Your task to perform on an android device: read, delete, or share a saved page in the chrome app Image 0: 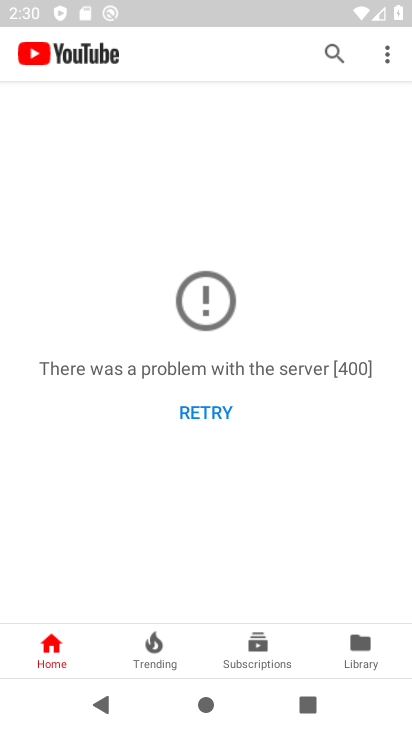
Step 0: press home button
Your task to perform on an android device: read, delete, or share a saved page in the chrome app Image 1: 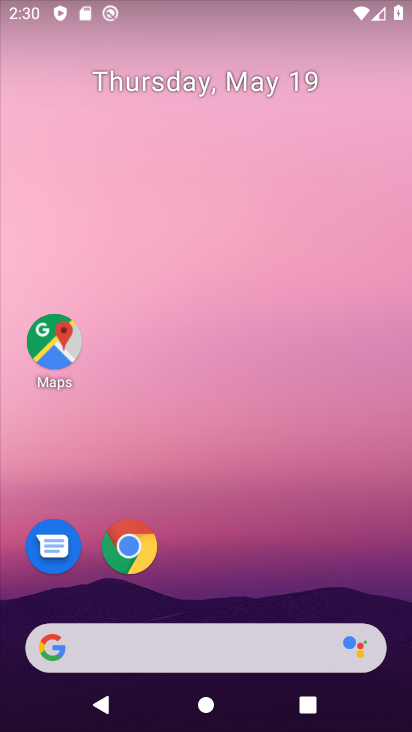
Step 1: click (141, 558)
Your task to perform on an android device: read, delete, or share a saved page in the chrome app Image 2: 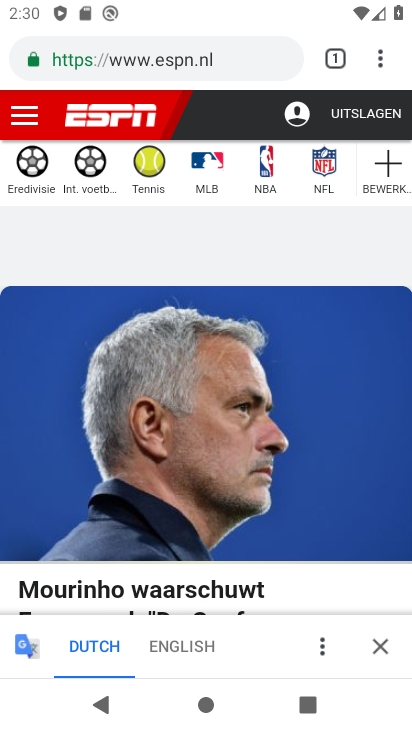
Step 2: drag from (379, 72) to (214, 381)
Your task to perform on an android device: read, delete, or share a saved page in the chrome app Image 3: 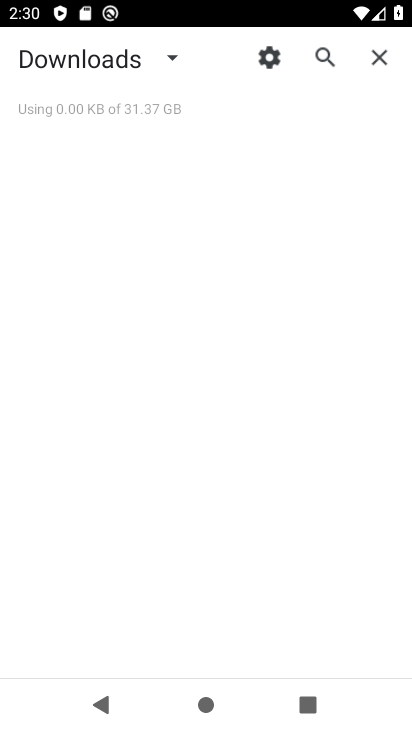
Step 3: click (129, 62)
Your task to perform on an android device: read, delete, or share a saved page in the chrome app Image 4: 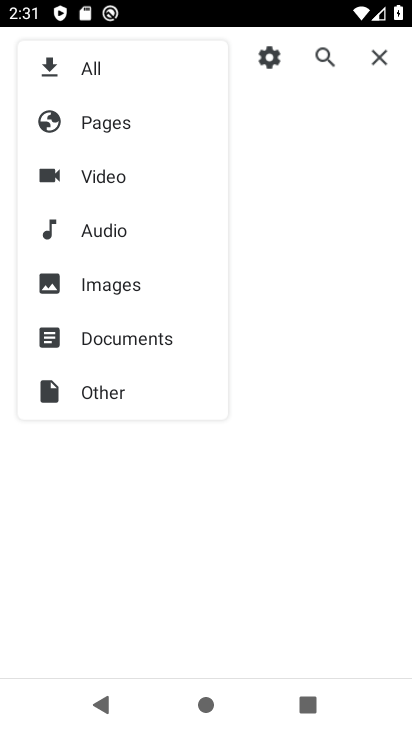
Step 4: click (120, 126)
Your task to perform on an android device: read, delete, or share a saved page in the chrome app Image 5: 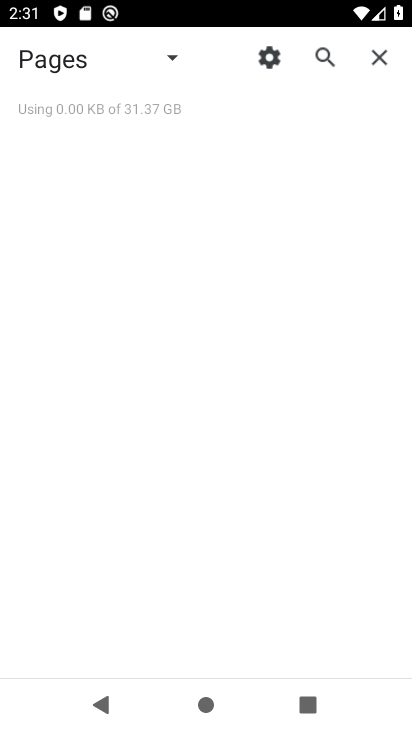
Step 5: task complete